Your task to perform on an android device: add a contact Image 0: 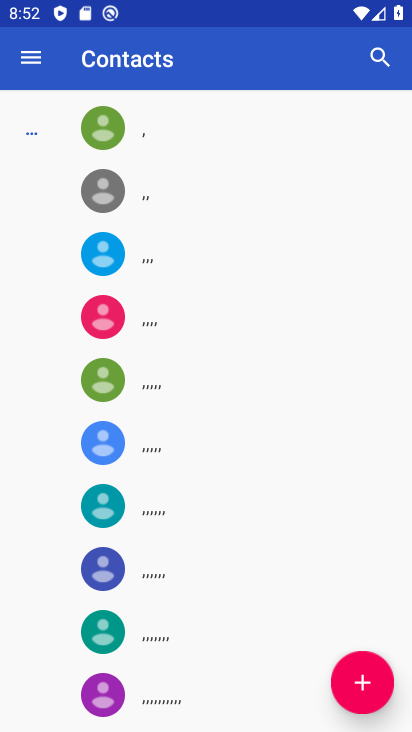
Step 0: click (358, 678)
Your task to perform on an android device: add a contact Image 1: 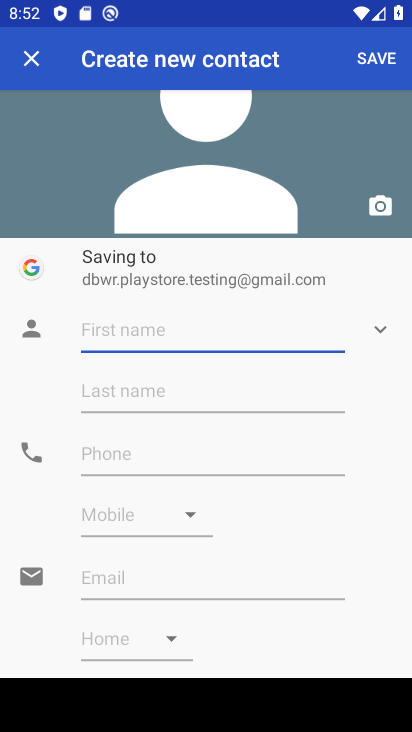
Step 1: type ""
Your task to perform on an android device: add a contact Image 2: 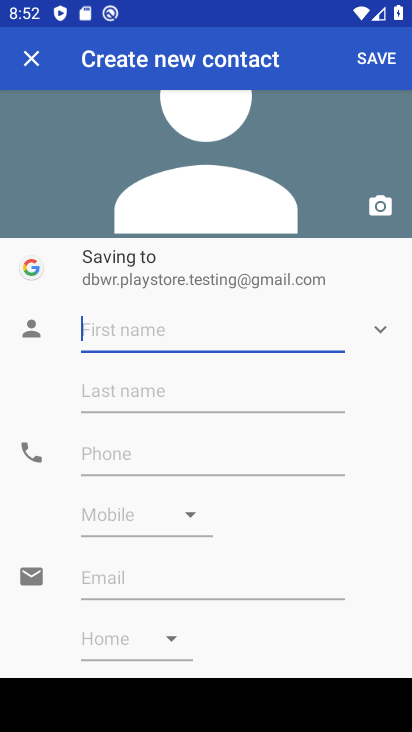
Step 2: type "God"
Your task to perform on an android device: add a contact Image 3: 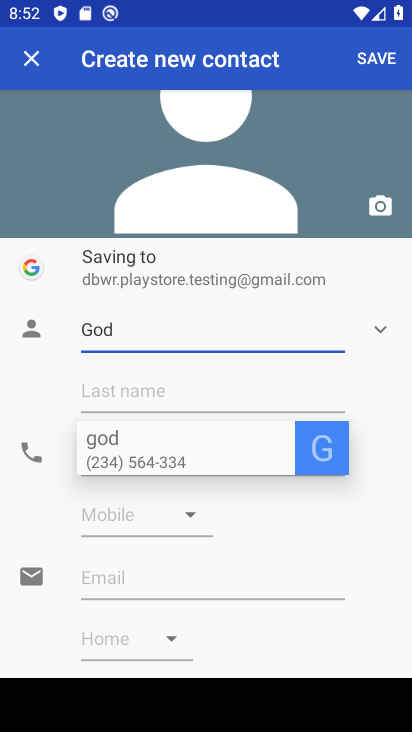
Step 3: type " will"
Your task to perform on an android device: add a contact Image 4: 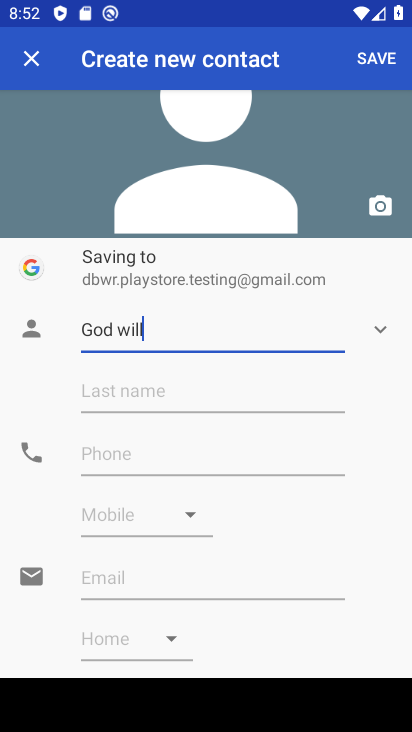
Step 4: click (121, 452)
Your task to perform on an android device: add a contact Image 5: 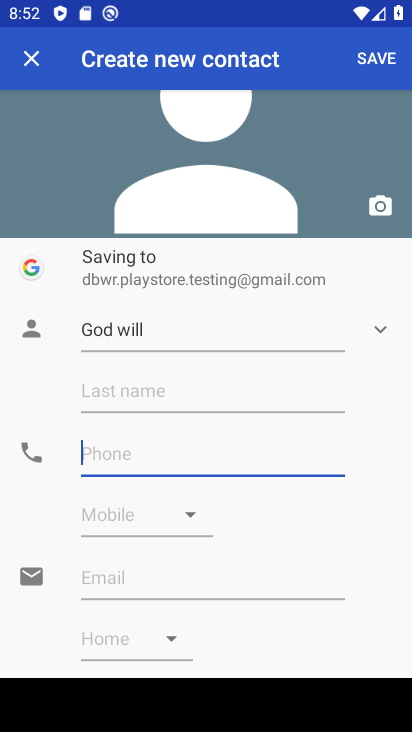
Step 5: type "767676"
Your task to perform on an android device: add a contact Image 6: 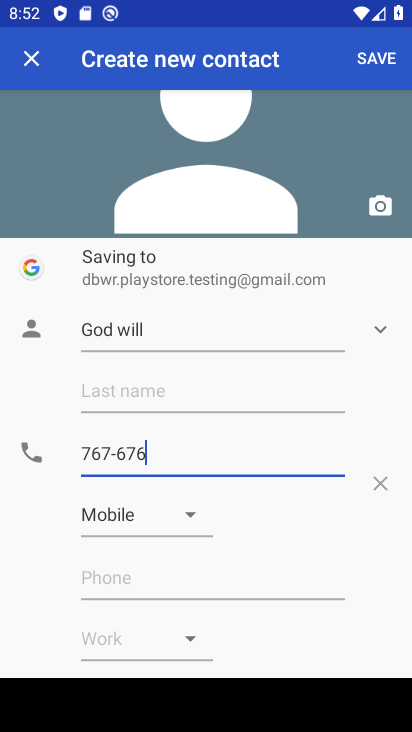
Step 6: click (376, 58)
Your task to perform on an android device: add a contact Image 7: 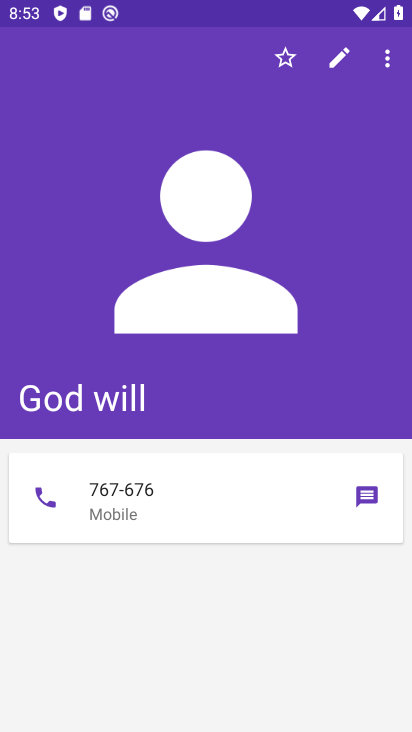
Step 7: task complete